Your task to perform on an android device: change your default location settings in chrome Image 0: 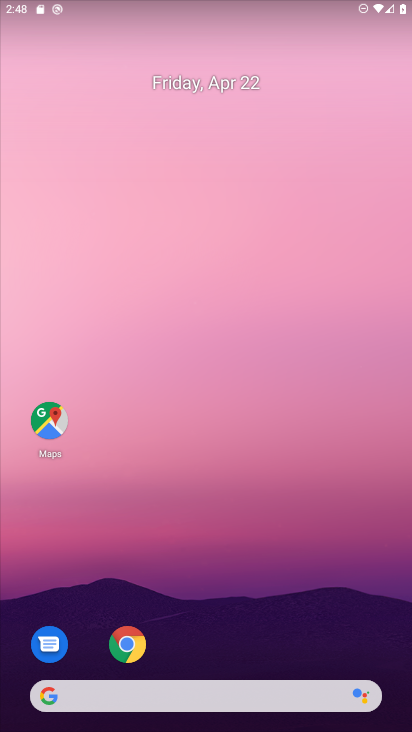
Step 0: drag from (263, 646) to (244, 170)
Your task to perform on an android device: change your default location settings in chrome Image 1: 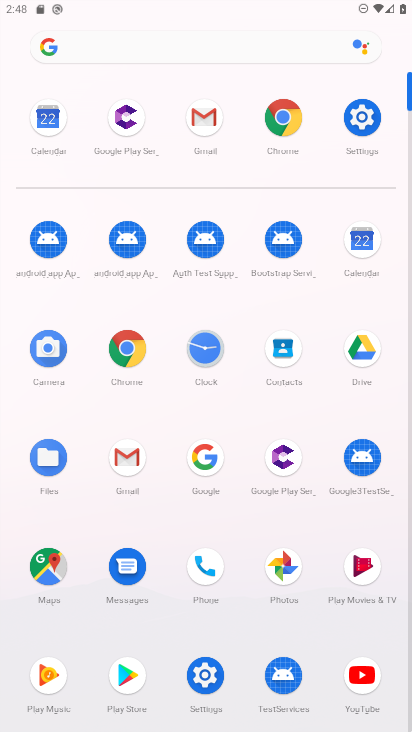
Step 1: click (123, 352)
Your task to perform on an android device: change your default location settings in chrome Image 2: 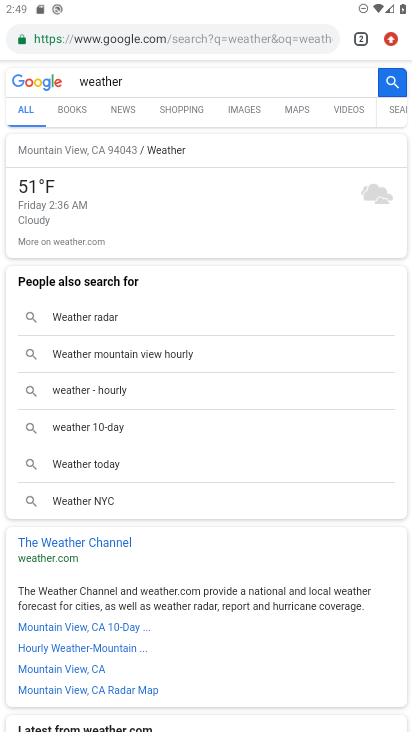
Step 2: drag from (410, 36) to (255, 487)
Your task to perform on an android device: change your default location settings in chrome Image 3: 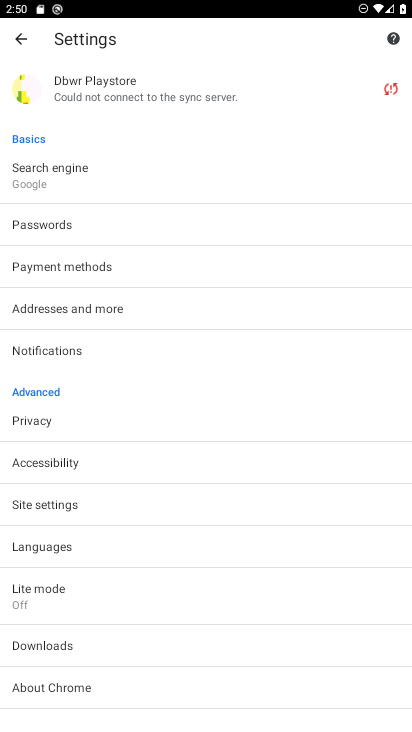
Step 3: click (56, 178)
Your task to perform on an android device: change your default location settings in chrome Image 4: 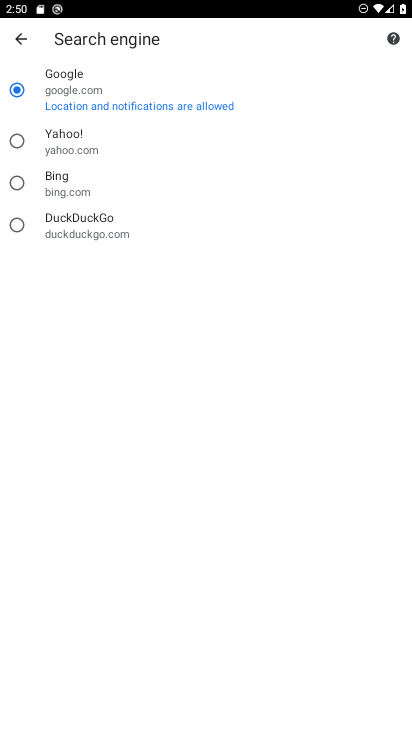
Step 4: task complete